Your task to perform on an android device: turn on sleep mode Image 0: 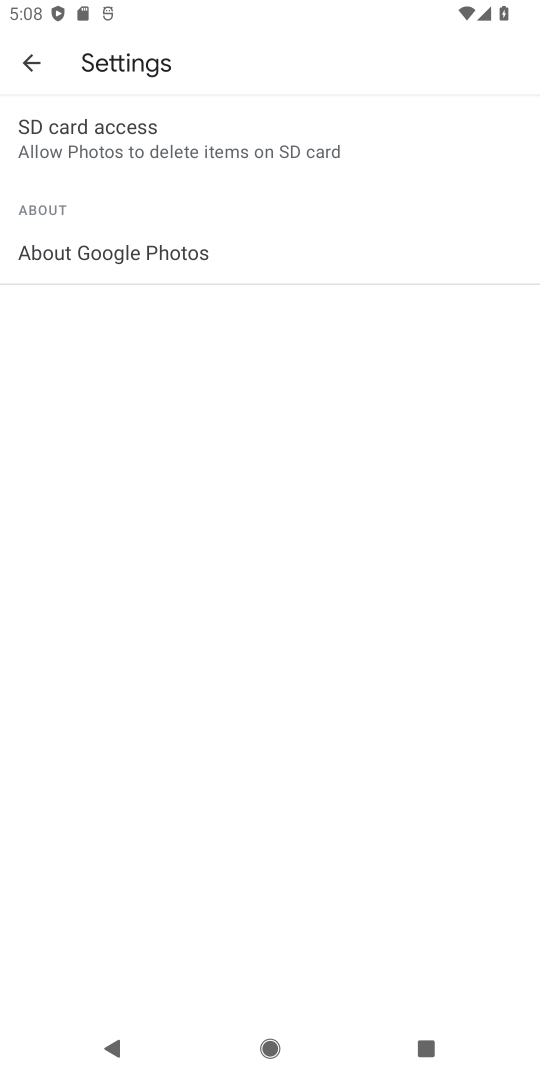
Step 0: press home button
Your task to perform on an android device: turn on sleep mode Image 1: 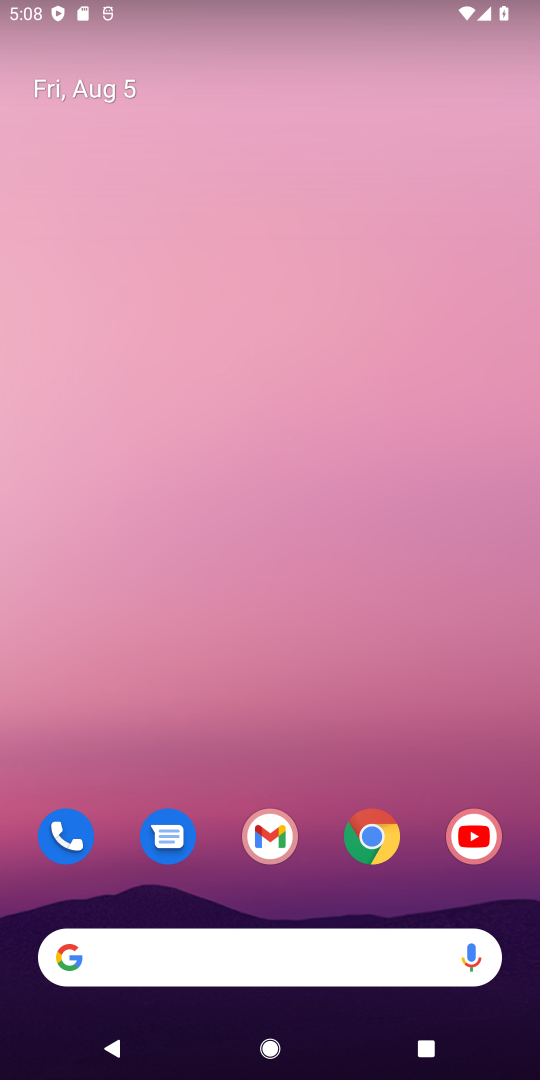
Step 1: drag from (320, 783) to (346, 64)
Your task to perform on an android device: turn on sleep mode Image 2: 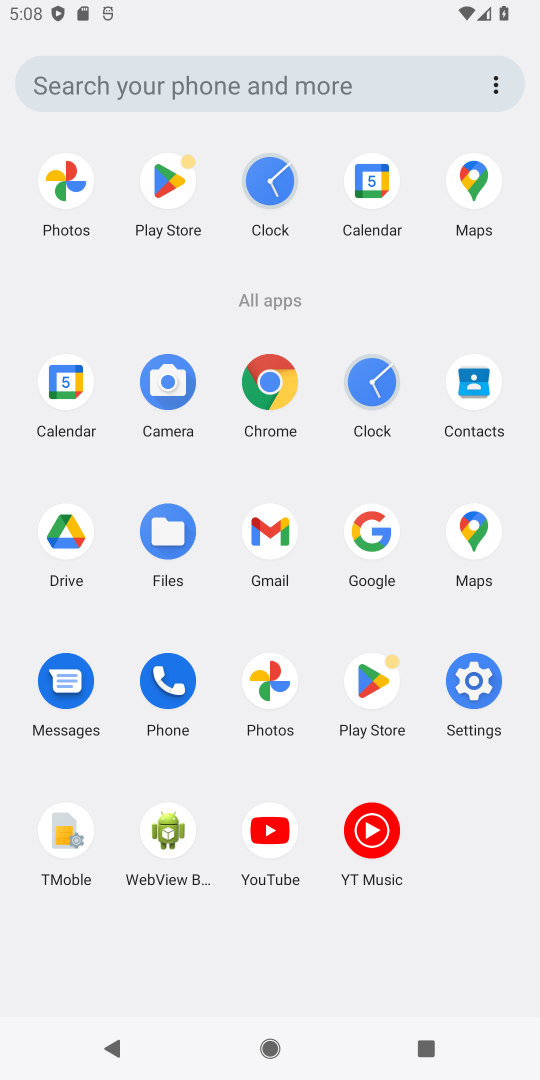
Step 2: click (470, 672)
Your task to perform on an android device: turn on sleep mode Image 3: 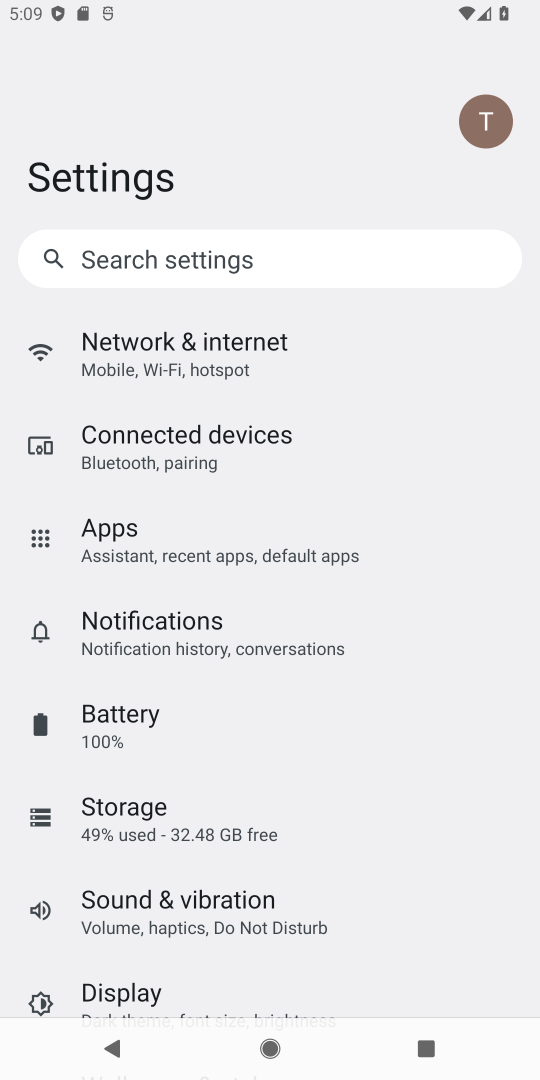
Step 3: click (190, 988)
Your task to perform on an android device: turn on sleep mode Image 4: 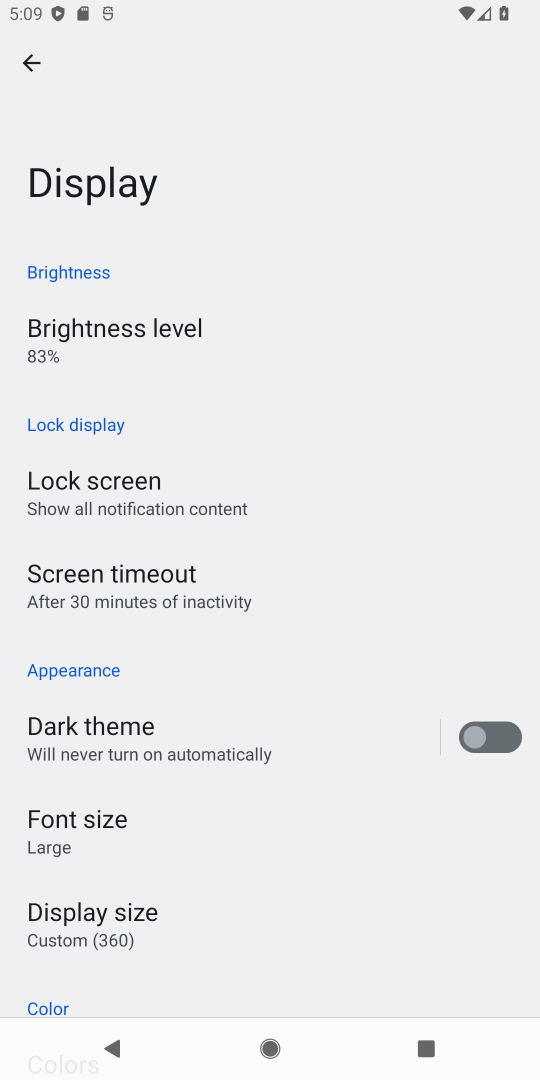
Step 4: task complete